Your task to perform on an android device: turn smart compose on in the gmail app Image 0: 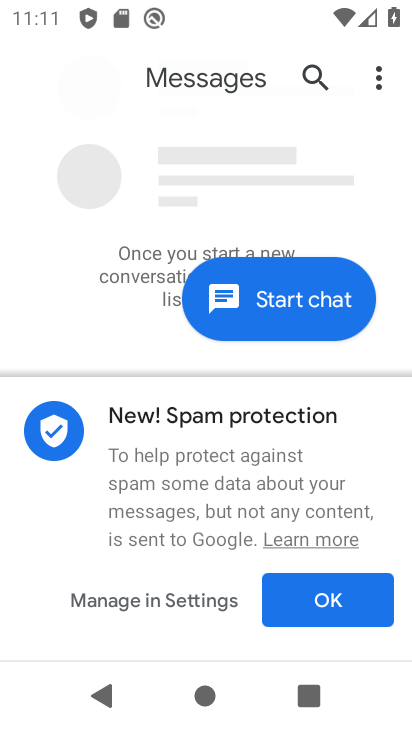
Step 0: press home button
Your task to perform on an android device: turn smart compose on in the gmail app Image 1: 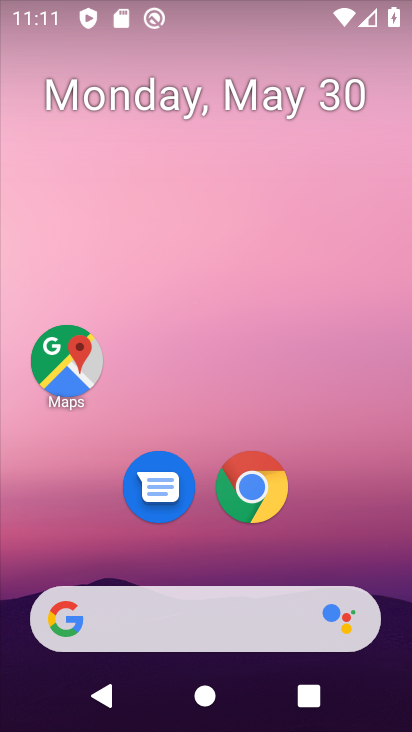
Step 1: drag from (354, 524) to (155, 135)
Your task to perform on an android device: turn smart compose on in the gmail app Image 2: 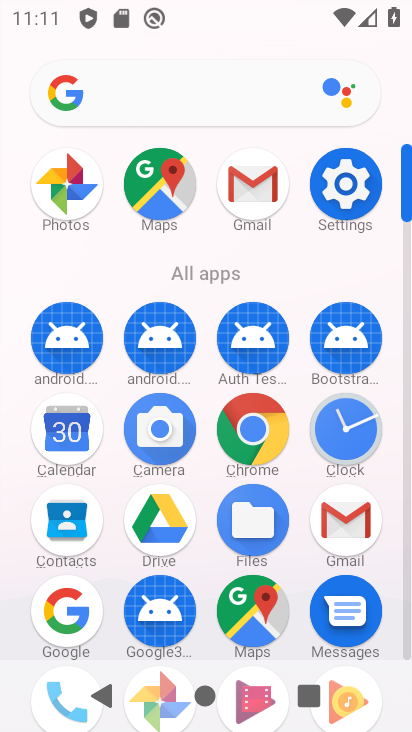
Step 2: click (254, 175)
Your task to perform on an android device: turn smart compose on in the gmail app Image 3: 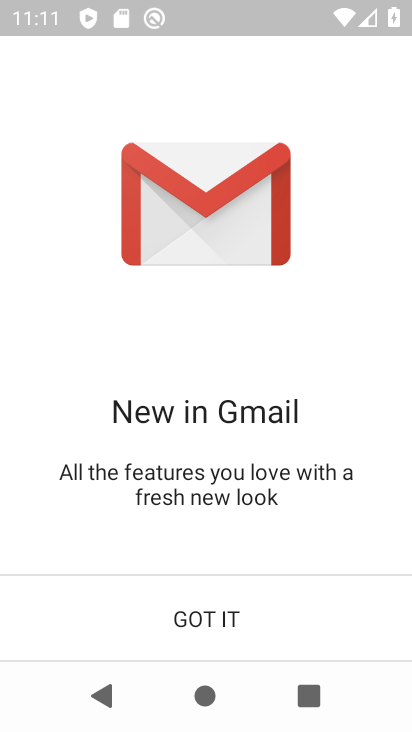
Step 3: click (210, 620)
Your task to perform on an android device: turn smart compose on in the gmail app Image 4: 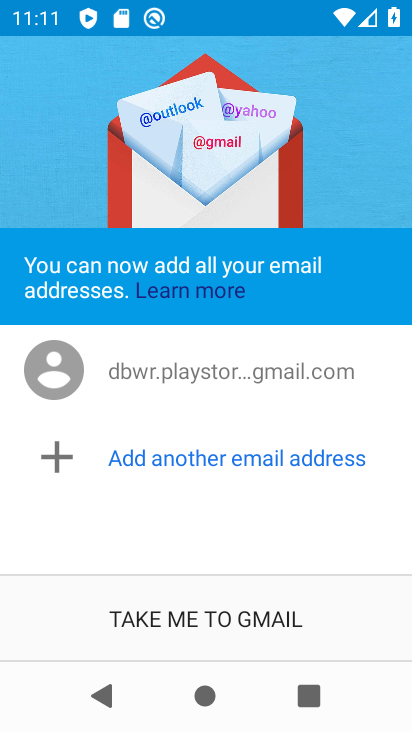
Step 4: click (210, 620)
Your task to perform on an android device: turn smart compose on in the gmail app Image 5: 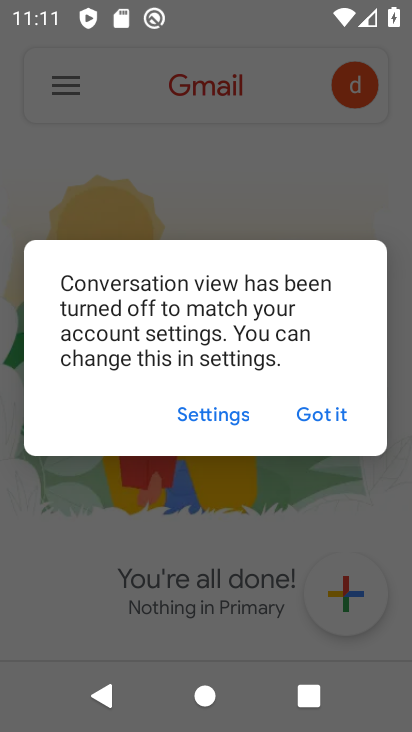
Step 5: click (314, 416)
Your task to perform on an android device: turn smart compose on in the gmail app Image 6: 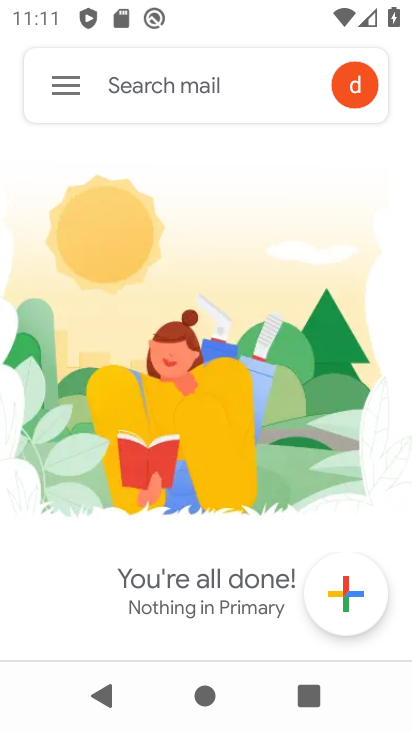
Step 6: click (75, 79)
Your task to perform on an android device: turn smart compose on in the gmail app Image 7: 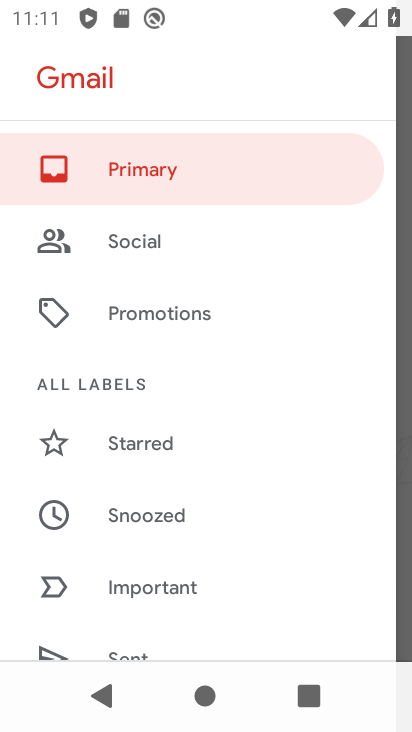
Step 7: drag from (195, 499) to (166, 289)
Your task to perform on an android device: turn smart compose on in the gmail app Image 8: 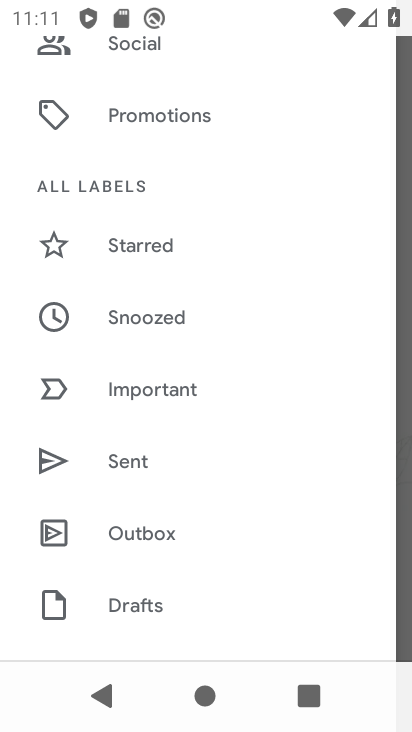
Step 8: drag from (214, 538) to (190, 315)
Your task to perform on an android device: turn smart compose on in the gmail app Image 9: 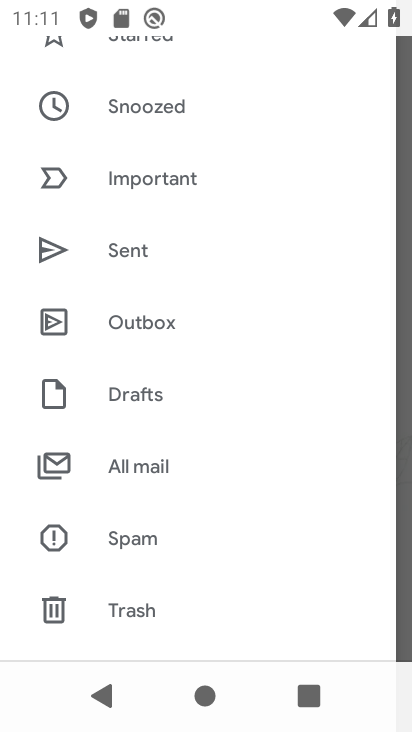
Step 9: drag from (177, 573) to (149, 274)
Your task to perform on an android device: turn smart compose on in the gmail app Image 10: 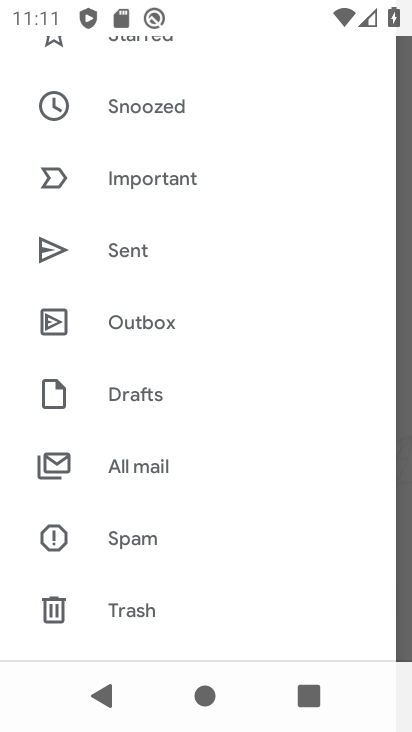
Step 10: drag from (186, 569) to (210, 258)
Your task to perform on an android device: turn smart compose on in the gmail app Image 11: 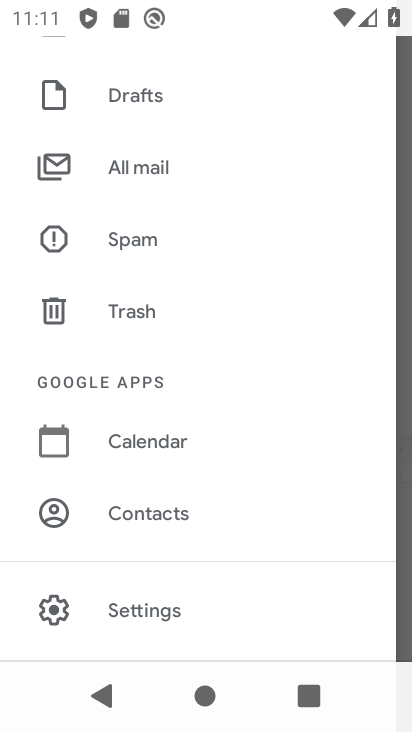
Step 11: click (140, 600)
Your task to perform on an android device: turn smart compose on in the gmail app Image 12: 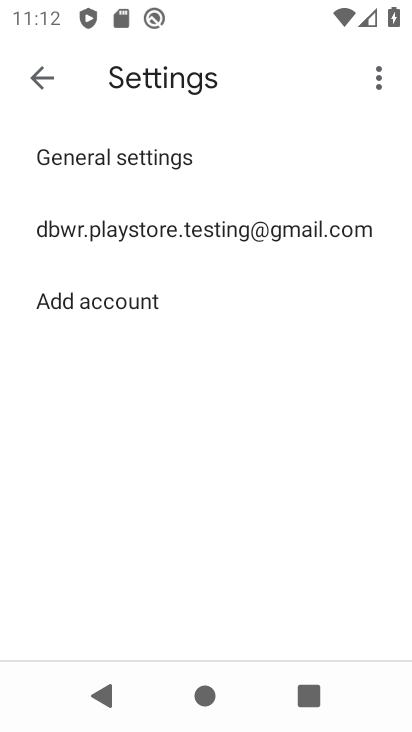
Step 12: click (123, 225)
Your task to perform on an android device: turn smart compose on in the gmail app Image 13: 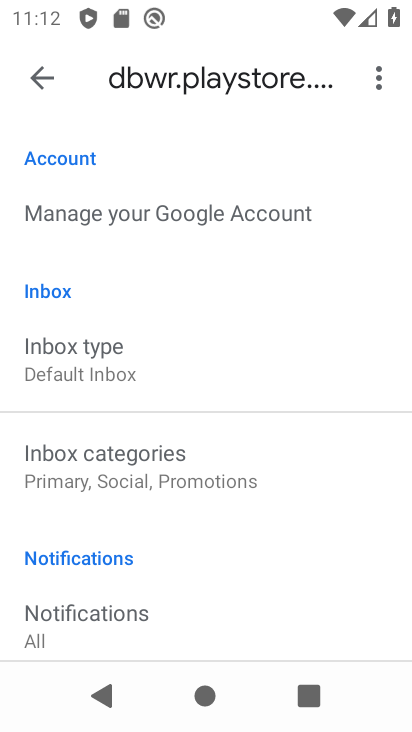
Step 13: task complete